Your task to perform on an android device: Go to CNN.com Image 0: 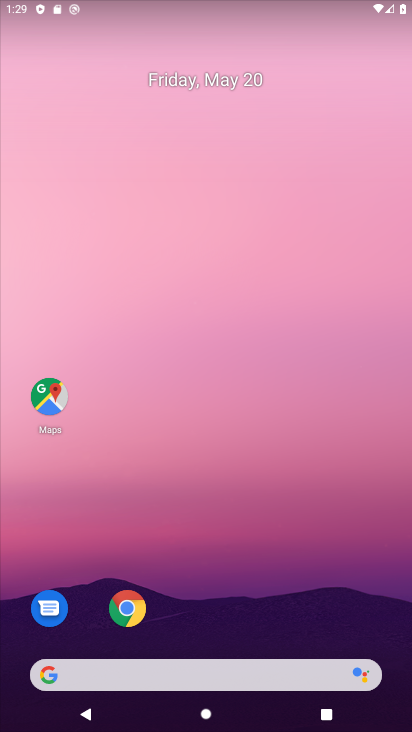
Step 0: drag from (270, 617) to (282, 173)
Your task to perform on an android device: Go to CNN.com Image 1: 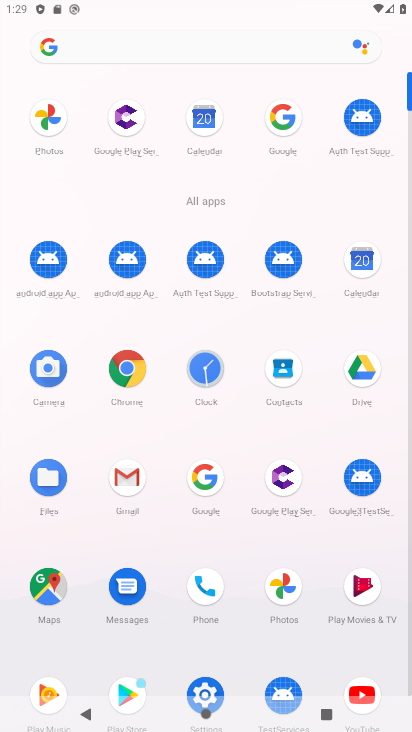
Step 1: click (205, 485)
Your task to perform on an android device: Go to CNN.com Image 2: 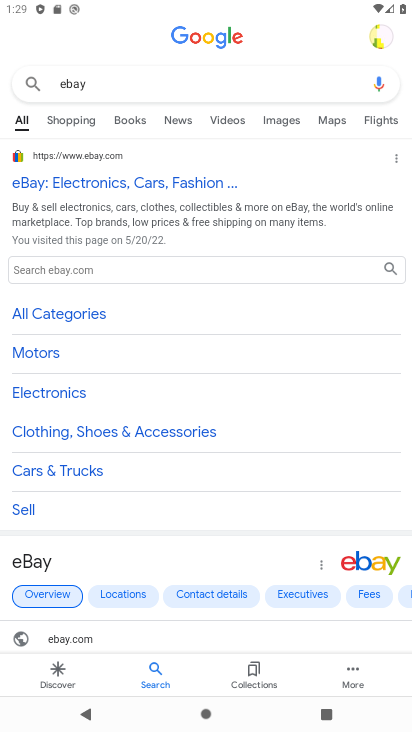
Step 2: click (145, 88)
Your task to perform on an android device: Go to CNN.com Image 3: 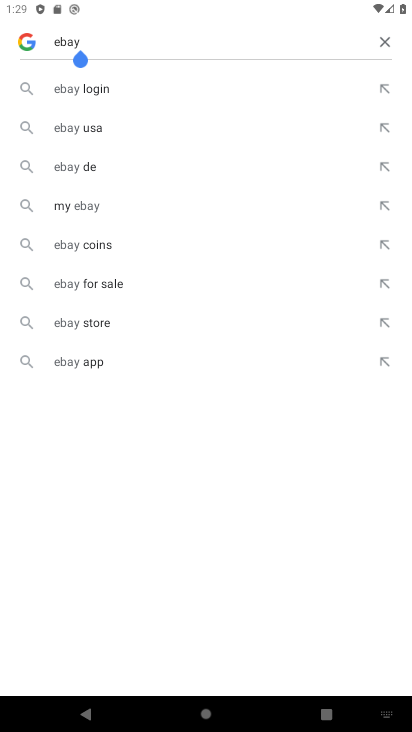
Step 3: click (386, 47)
Your task to perform on an android device: Go to CNN.com Image 4: 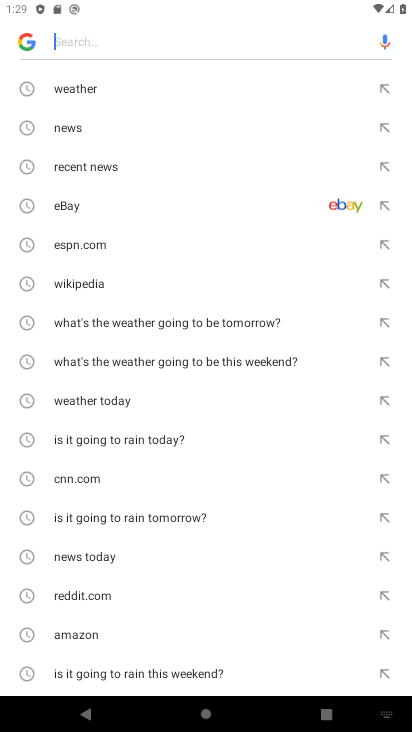
Step 4: click (129, 485)
Your task to perform on an android device: Go to CNN.com Image 5: 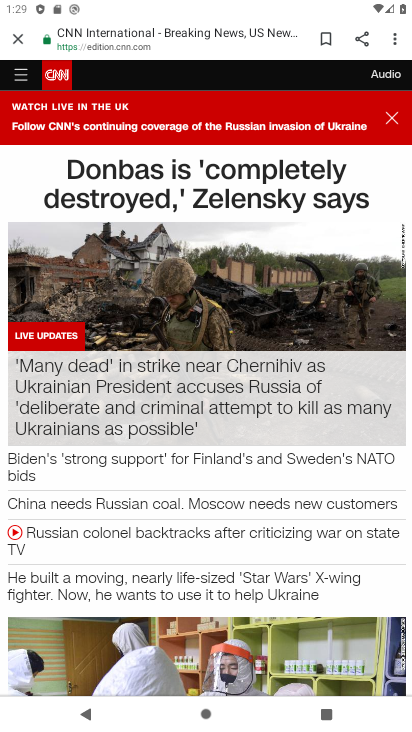
Step 5: task complete